Your task to perform on an android device: change the clock display to analog Image 0: 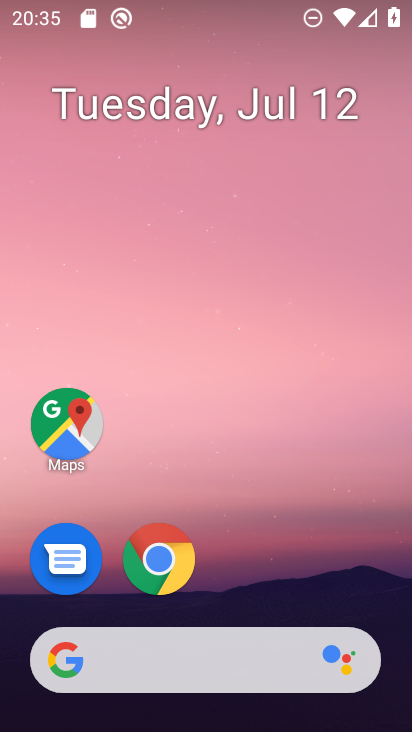
Step 0: drag from (378, 596) to (348, 104)
Your task to perform on an android device: change the clock display to analog Image 1: 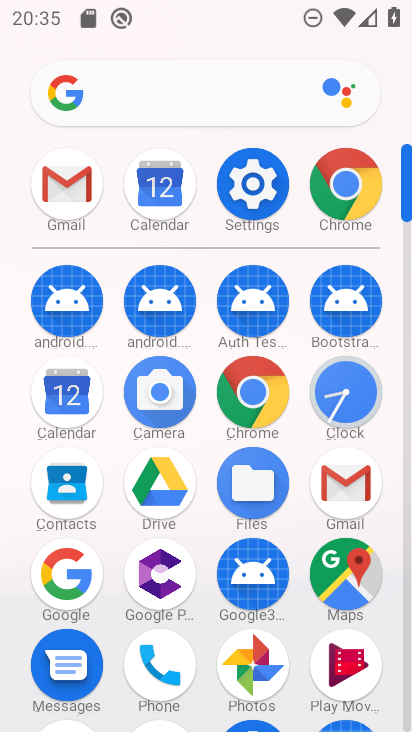
Step 1: click (360, 390)
Your task to perform on an android device: change the clock display to analog Image 2: 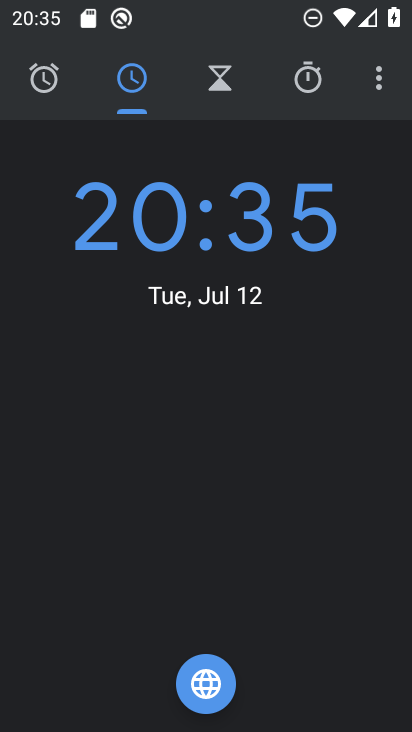
Step 2: click (383, 90)
Your task to perform on an android device: change the clock display to analog Image 3: 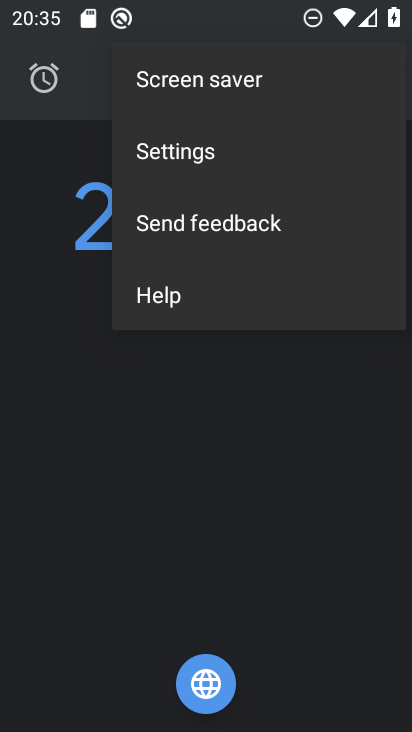
Step 3: click (238, 162)
Your task to perform on an android device: change the clock display to analog Image 4: 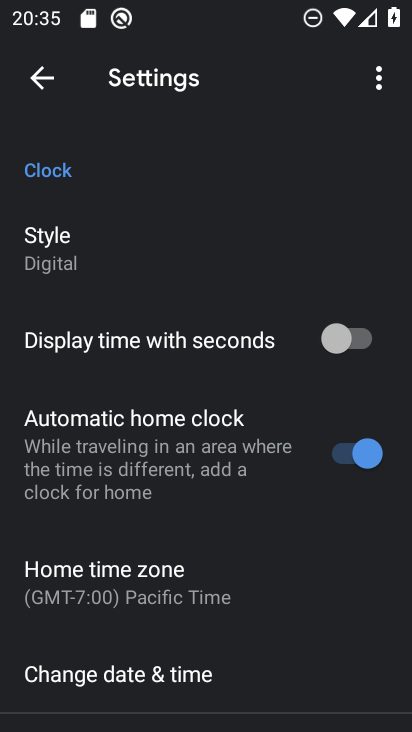
Step 4: drag from (290, 432) to (301, 290)
Your task to perform on an android device: change the clock display to analog Image 5: 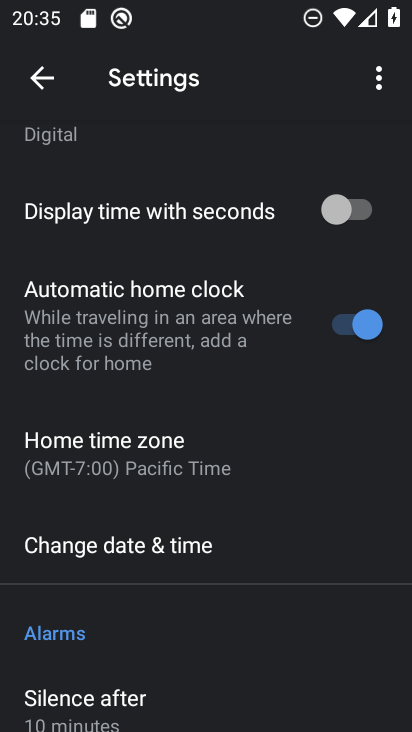
Step 5: drag from (303, 459) to (287, 332)
Your task to perform on an android device: change the clock display to analog Image 6: 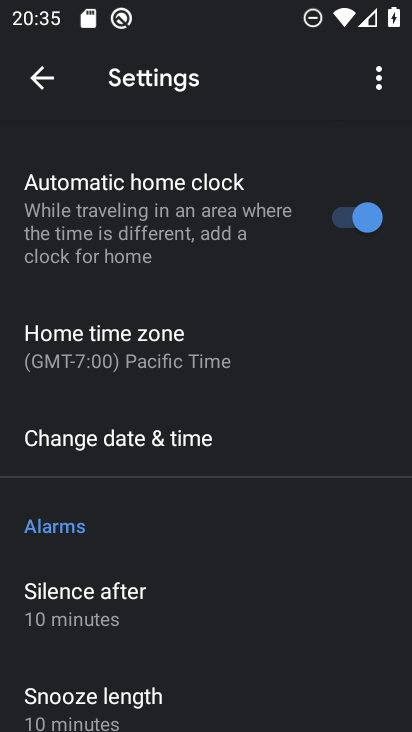
Step 6: drag from (285, 553) to (285, 393)
Your task to perform on an android device: change the clock display to analog Image 7: 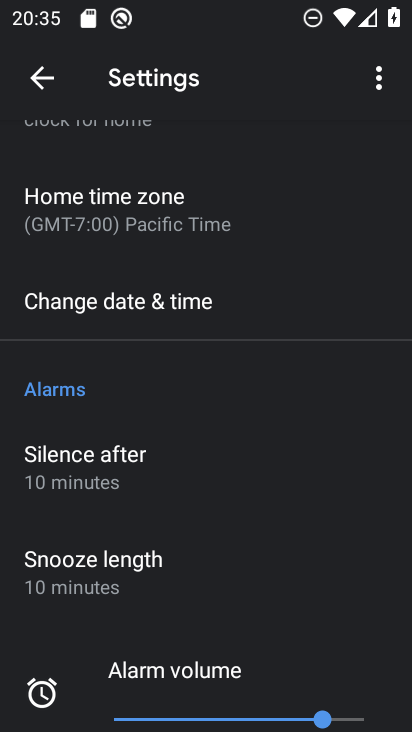
Step 7: drag from (318, 565) to (315, 379)
Your task to perform on an android device: change the clock display to analog Image 8: 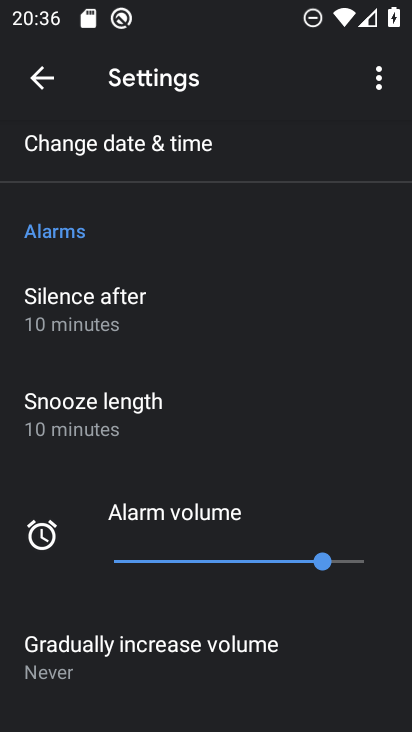
Step 8: drag from (339, 265) to (341, 394)
Your task to perform on an android device: change the clock display to analog Image 9: 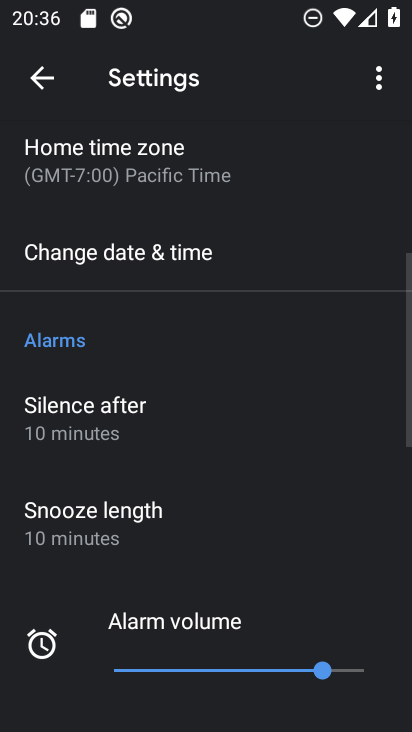
Step 9: drag from (342, 297) to (335, 428)
Your task to perform on an android device: change the clock display to analog Image 10: 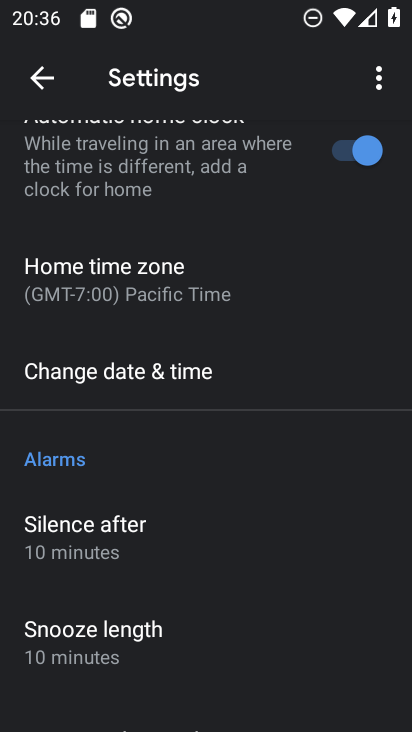
Step 10: drag from (317, 251) to (317, 410)
Your task to perform on an android device: change the clock display to analog Image 11: 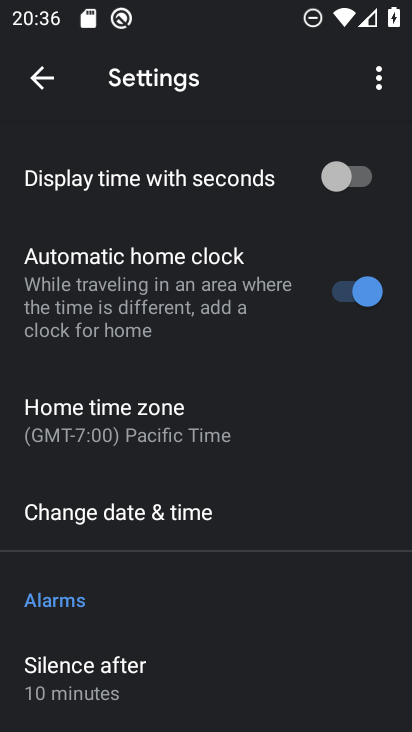
Step 11: drag from (280, 137) to (279, 345)
Your task to perform on an android device: change the clock display to analog Image 12: 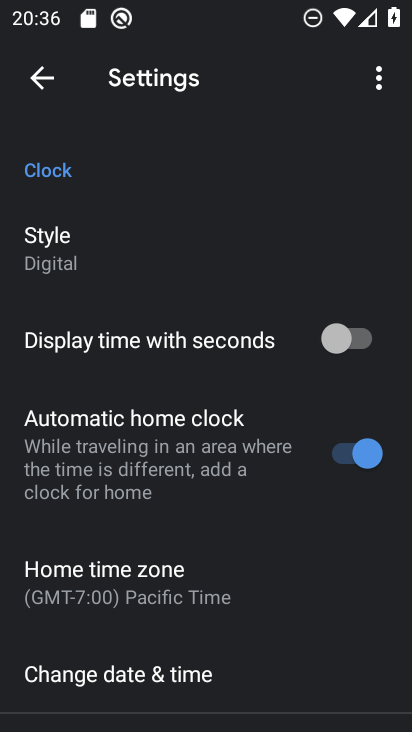
Step 12: click (79, 261)
Your task to perform on an android device: change the clock display to analog Image 13: 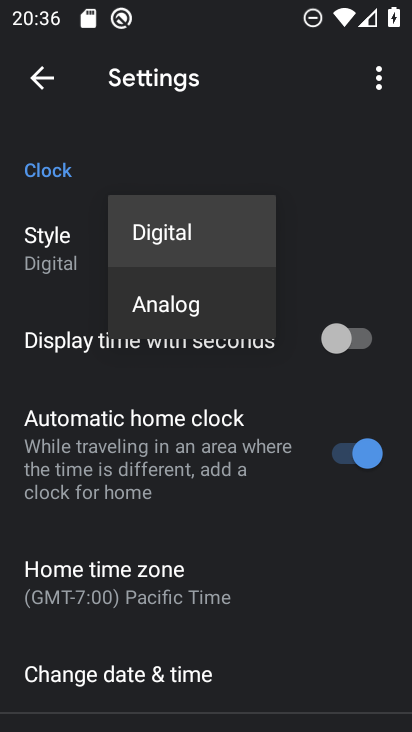
Step 13: click (179, 310)
Your task to perform on an android device: change the clock display to analog Image 14: 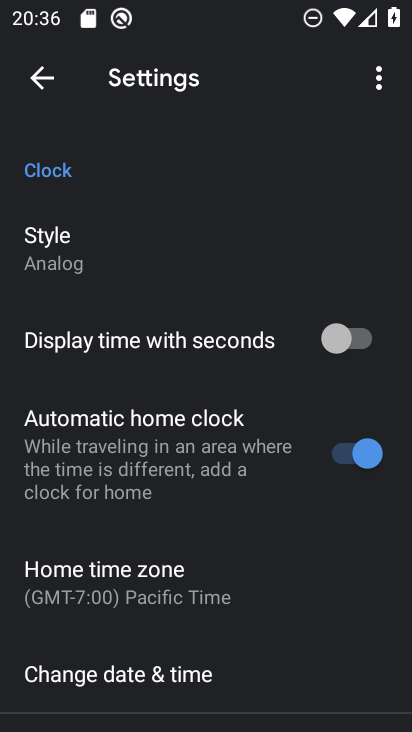
Step 14: task complete